Your task to perform on an android device: change the clock style Image 0: 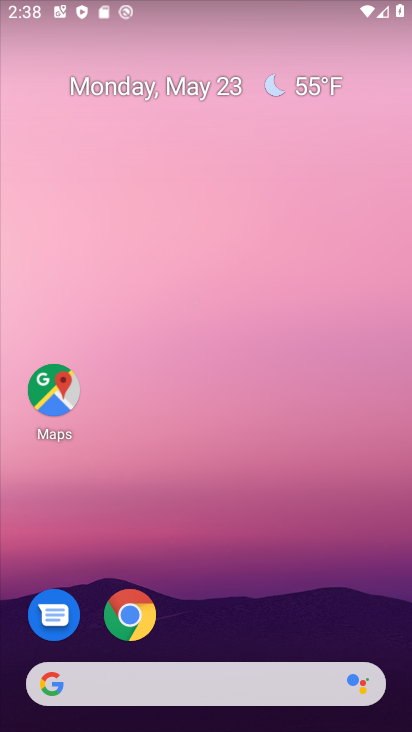
Step 0: drag from (386, 639) to (383, 312)
Your task to perform on an android device: change the clock style Image 1: 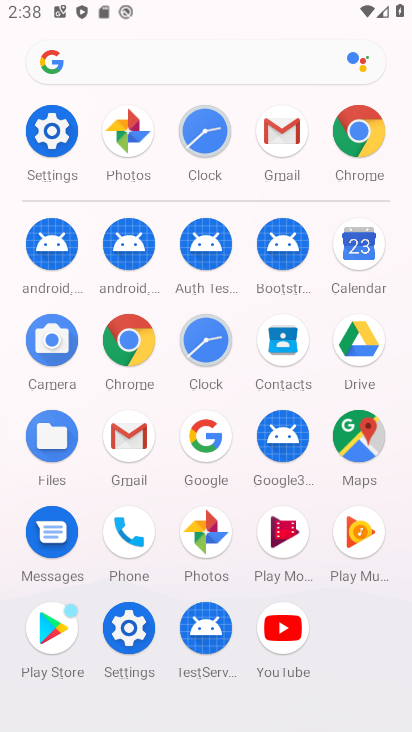
Step 1: click (191, 352)
Your task to perform on an android device: change the clock style Image 2: 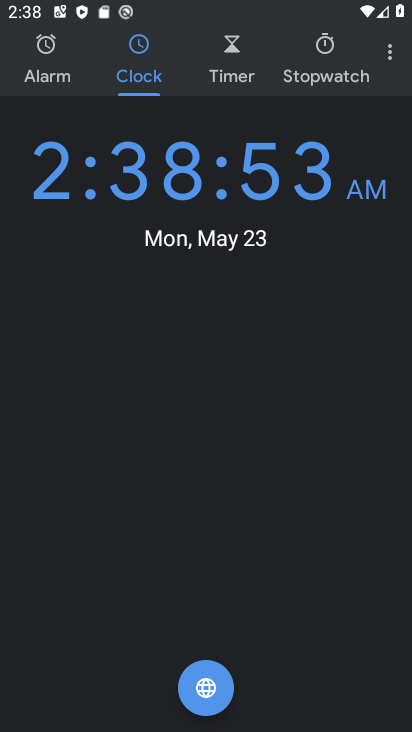
Step 2: click (392, 58)
Your task to perform on an android device: change the clock style Image 3: 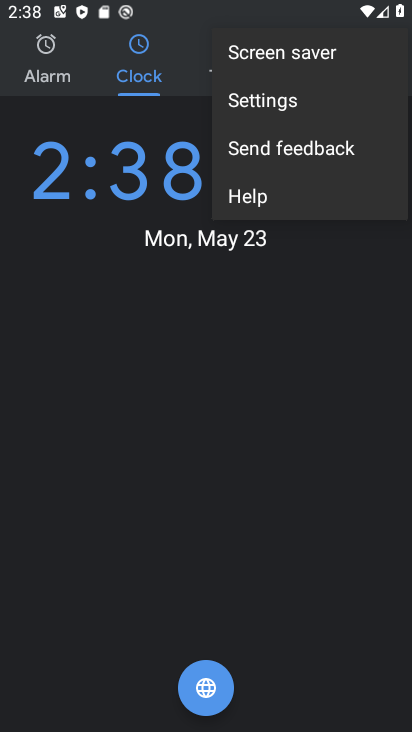
Step 3: click (338, 105)
Your task to perform on an android device: change the clock style Image 4: 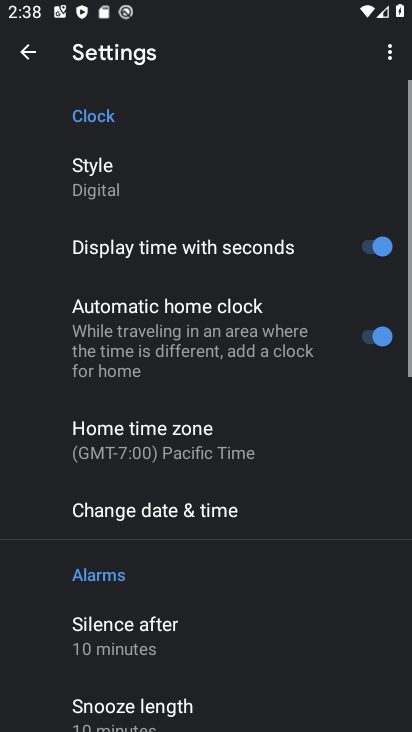
Step 4: drag from (250, 622) to (292, 495)
Your task to perform on an android device: change the clock style Image 5: 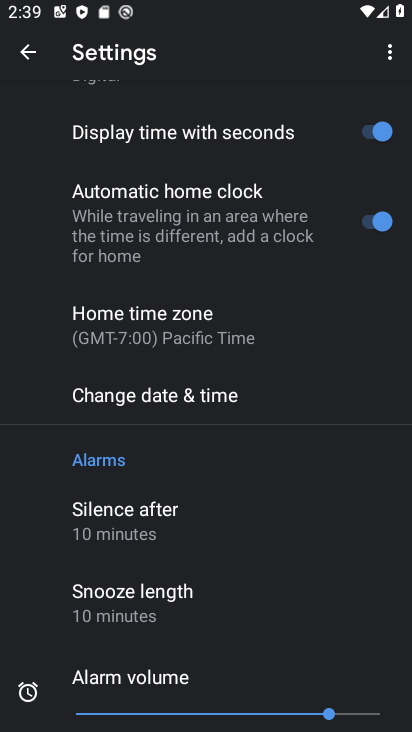
Step 5: drag from (299, 603) to (321, 487)
Your task to perform on an android device: change the clock style Image 6: 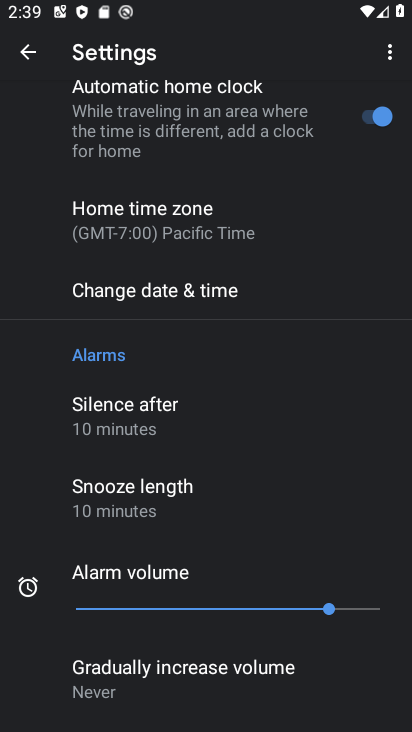
Step 6: drag from (290, 620) to (320, 527)
Your task to perform on an android device: change the clock style Image 7: 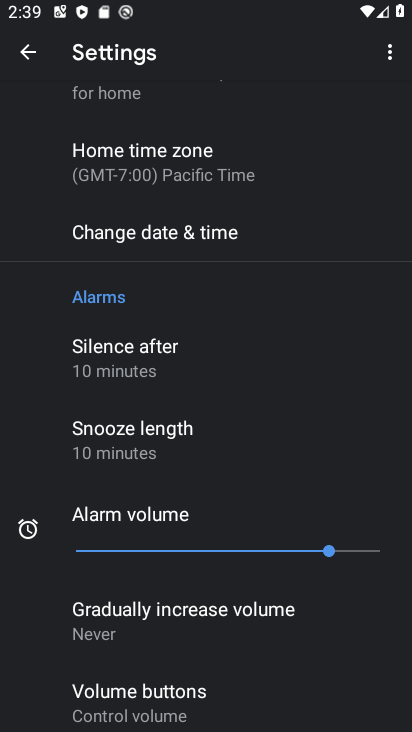
Step 7: drag from (327, 643) to (350, 551)
Your task to perform on an android device: change the clock style Image 8: 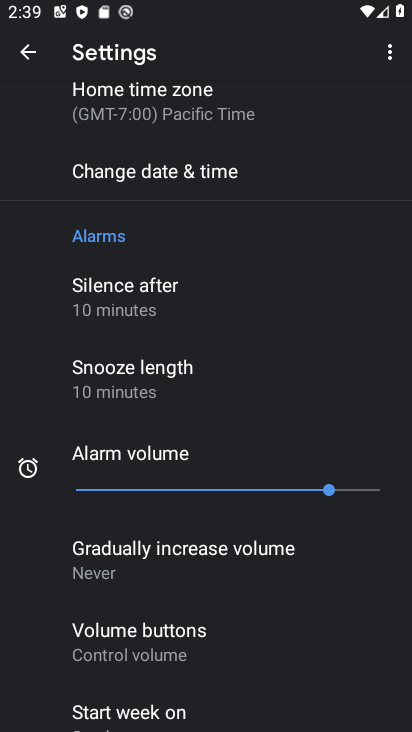
Step 8: drag from (331, 626) to (333, 544)
Your task to perform on an android device: change the clock style Image 9: 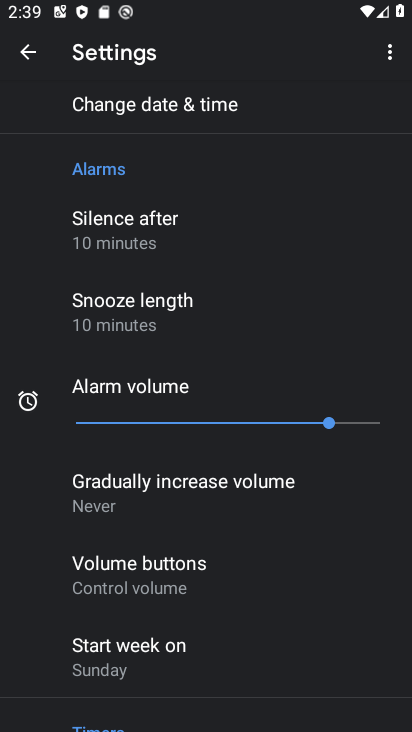
Step 9: drag from (336, 615) to (364, 518)
Your task to perform on an android device: change the clock style Image 10: 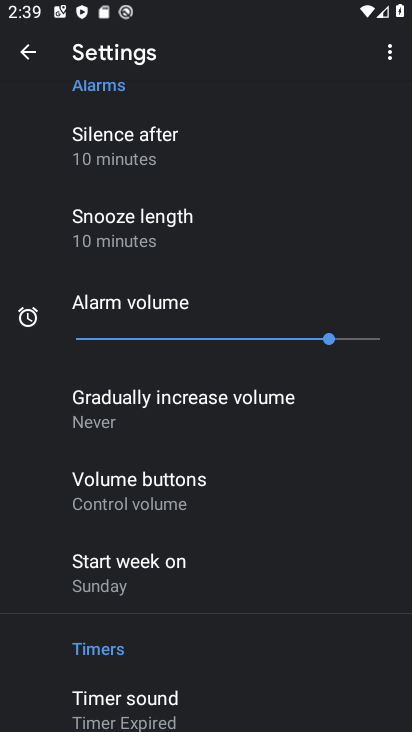
Step 10: drag from (327, 626) to (330, 523)
Your task to perform on an android device: change the clock style Image 11: 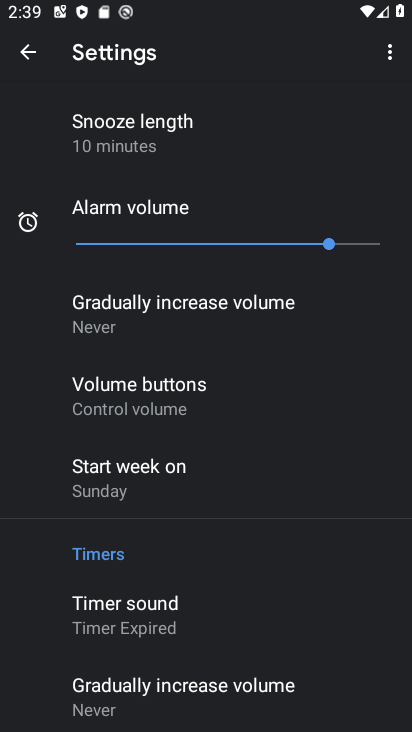
Step 11: drag from (313, 633) to (318, 555)
Your task to perform on an android device: change the clock style Image 12: 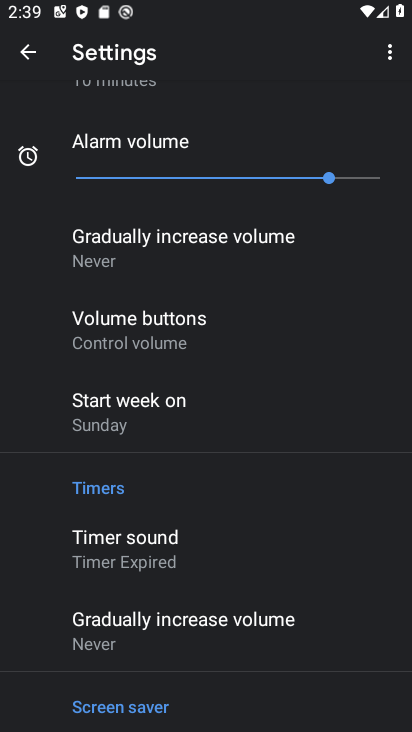
Step 12: drag from (305, 680) to (326, 460)
Your task to perform on an android device: change the clock style Image 13: 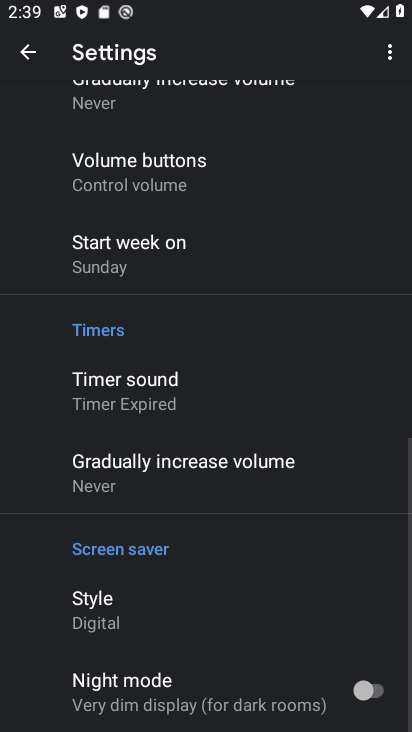
Step 13: drag from (332, 402) to (334, 499)
Your task to perform on an android device: change the clock style Image 14: 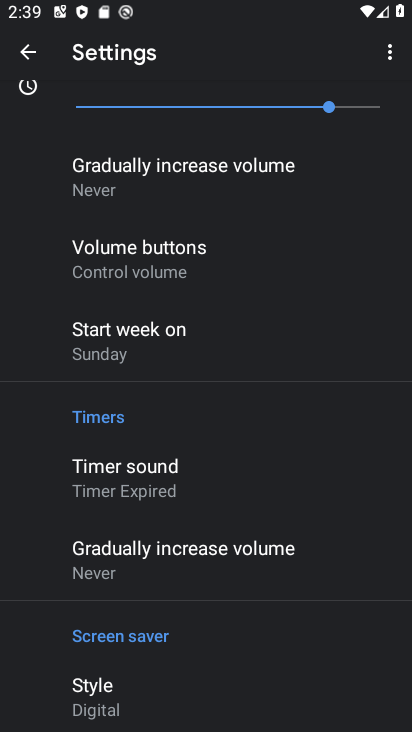
Step 14: drag from (328, 410) to (318, 490)
Your task to perform on an android device: change the clock style Image 15: 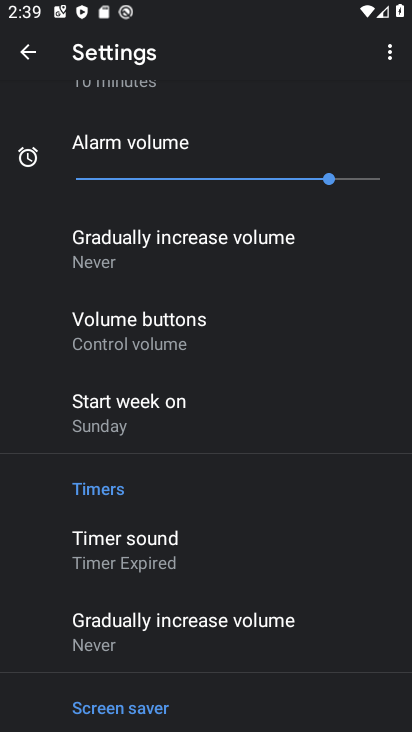
Step 15: drag from (302, 384) to (298, 468)
Your task to perform on an android device: change the clock style Image 16: 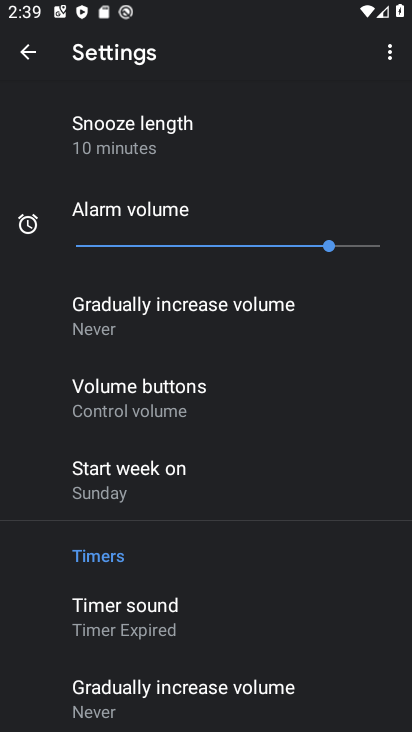
Step 16: drag from (306, 383) to (290, 466)
Your task to perform on an android device: change the clock style Image 17: 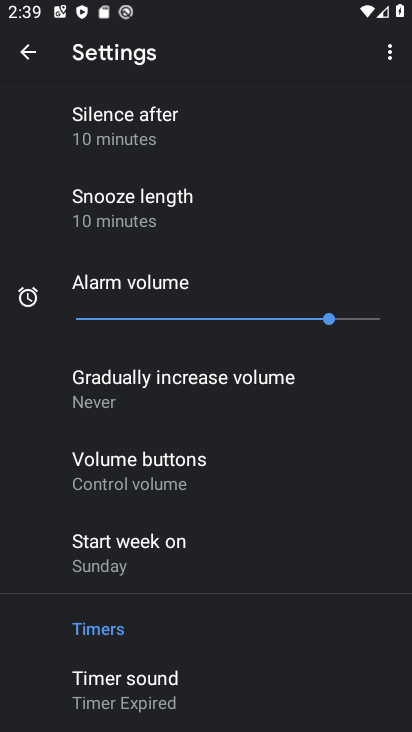
Step 17: drag from (315, 361) to (316, 459)
Your task to perform on an android device: change the clock style Image 18: 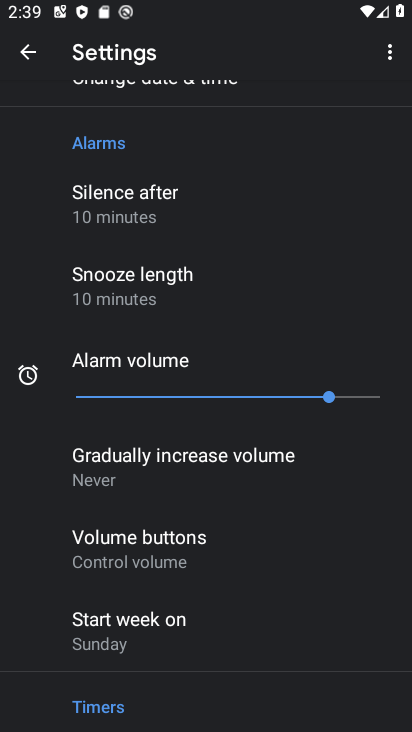
Step 18: drag from (317, 337) to (320, 437)
Your task to perform on an android device: change the clock style Image 19: 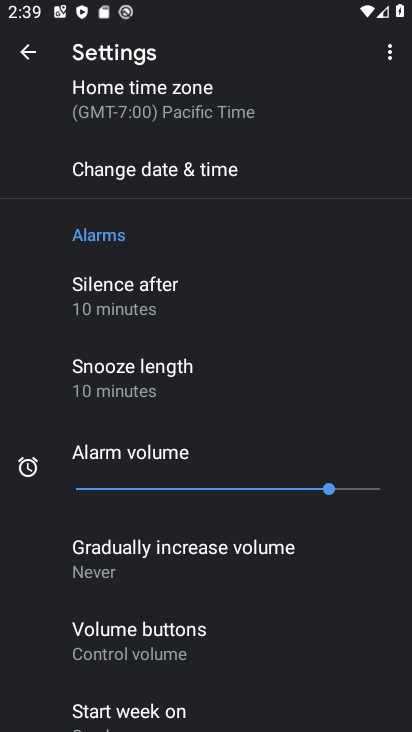
Step 19: drag from (311, 306) to (323, 395)
Your task to perform on an android device: change the clock style Image 20: 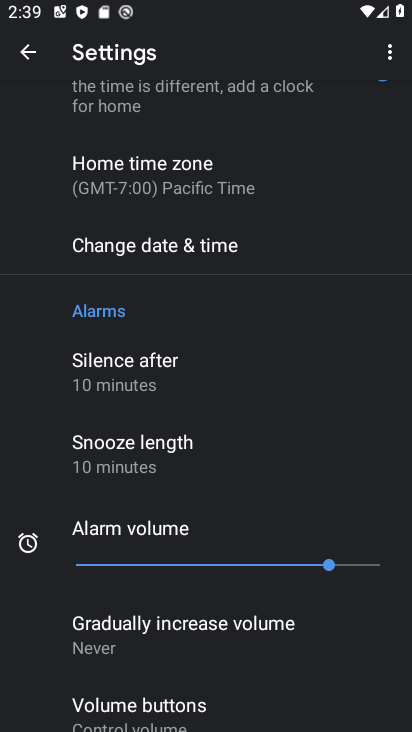
Step 20: drag from (330, 265) to (338, 364)
Your task to perform on an android device: change the clock style Image 21: 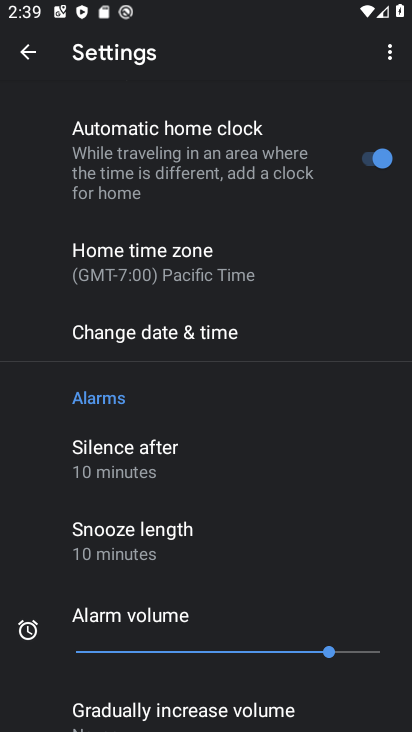
Step 21: drag from (318, 244) to (318, 341)
Your task to perform on an android device: change the clock style Image 22: 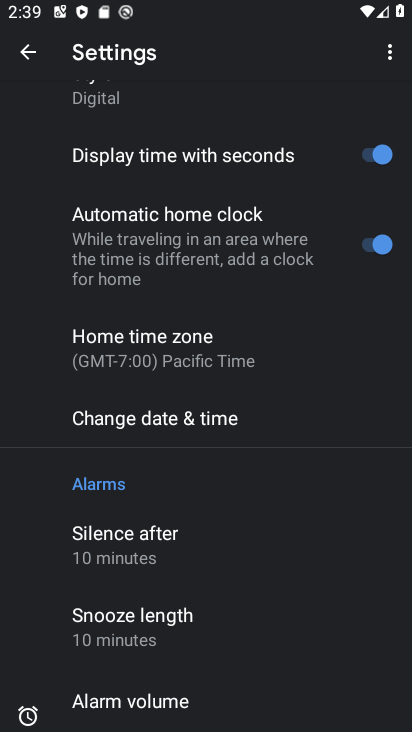
Step 22: drag from (321, 210) to (308, 326)
Your task to perform on an android device: change the clock style Image 23: 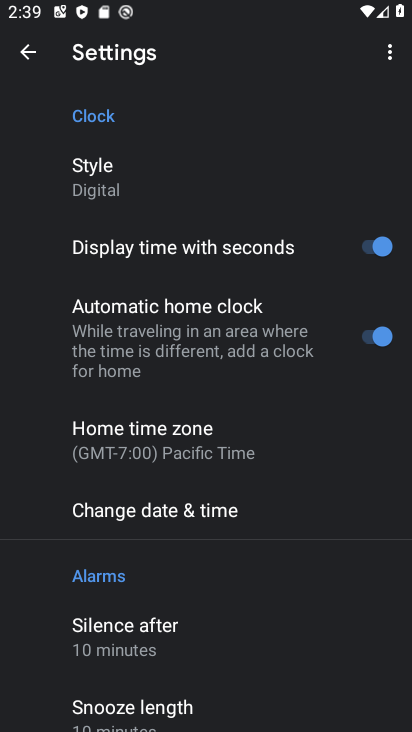
Step 23: click (110, 195)
Your task to perform on an android device: change the clock style Image 24: 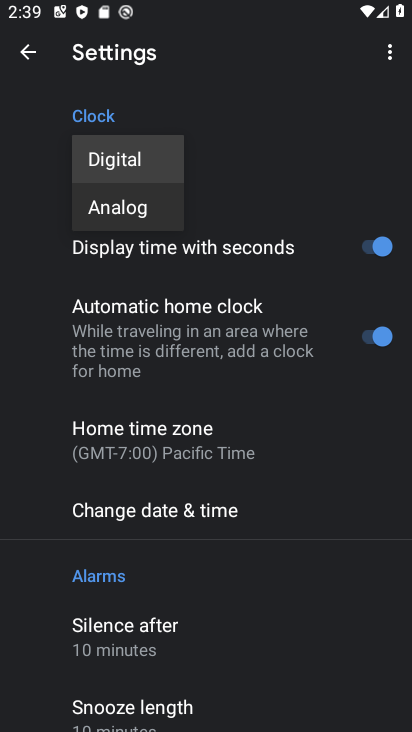
Step 24: click (121, 218)
Your task to perform on an android device: change the clock style Image 25: 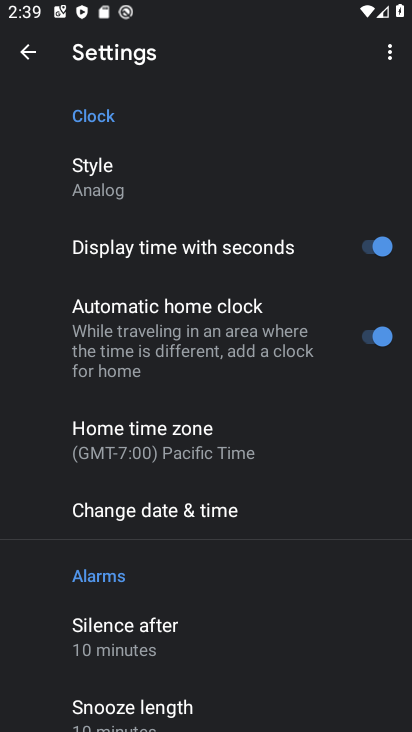
Step 25: task complete